Your task to perform on an android device: Clear all items from cart on costco.com. Add rayovac triple a to the cart on costco.com, then select checkout. Image 0: 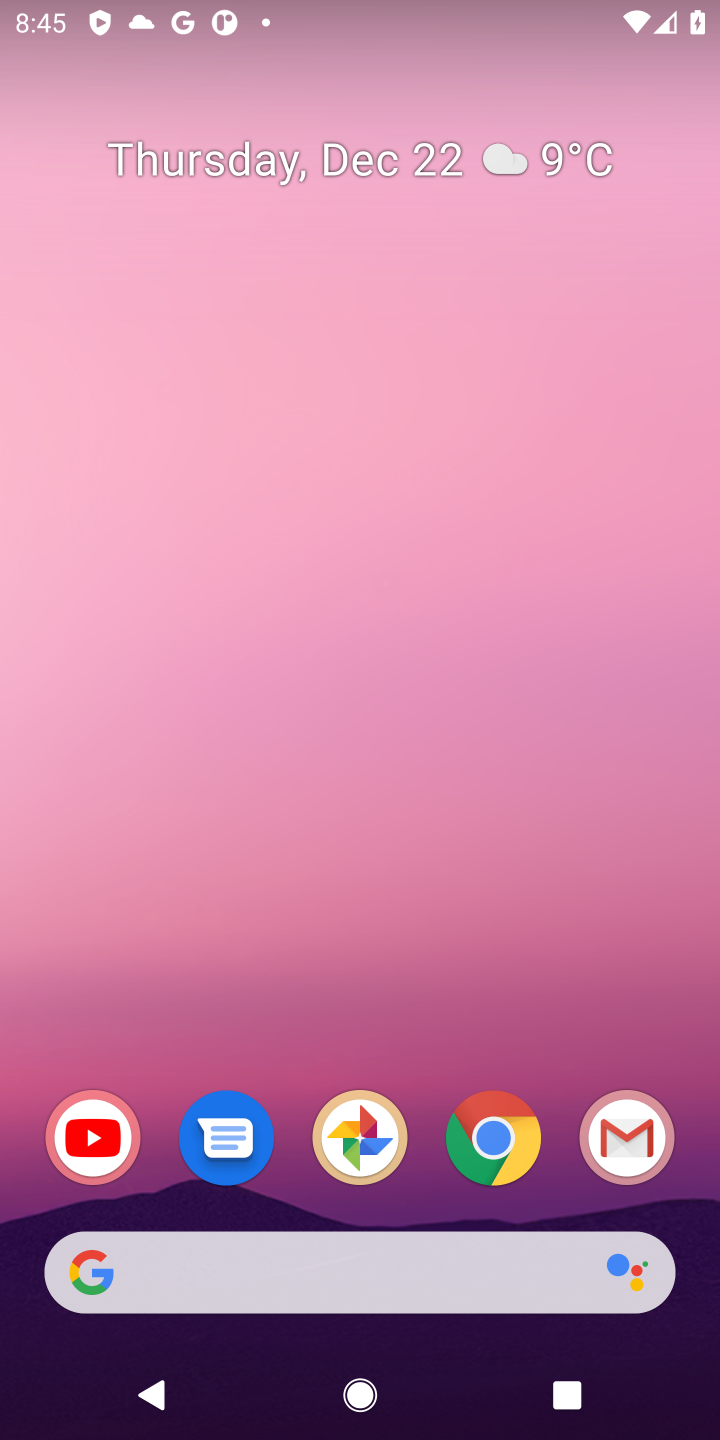
Step 0: click (524, 1134)
Your task to perform on an android device: Clear all items from cart on costco.com. Add rayovac triple a to the cart on costco.com, then select checkout. Image 1: 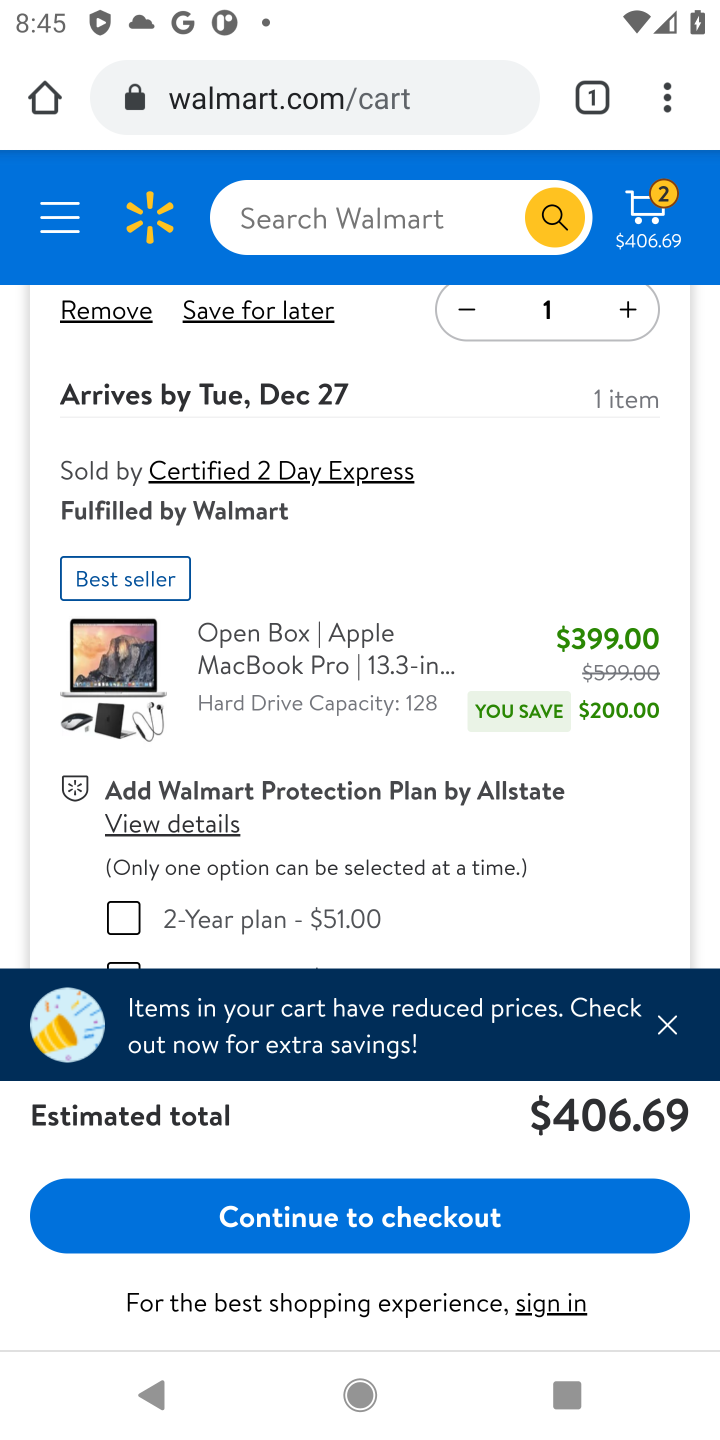
Step 1: click (282, 108)
Your task to perform on an android device: Clear all items from cart on costco.com. Add rayovac triple a to the cart on costco.com, then select checkout. Image 2: 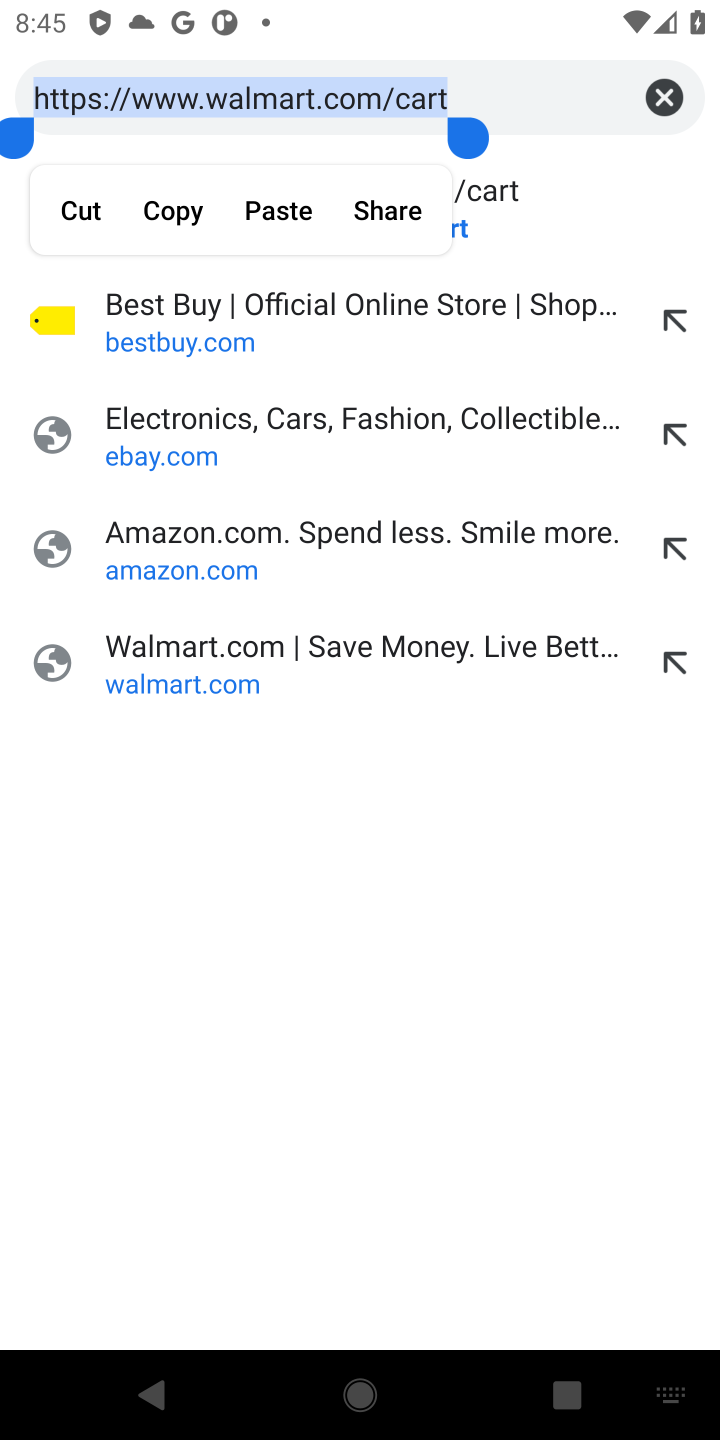
Step 2: click (673, 106)
Your task to perform on an android device: Clear all items from cart on costco.com. Add rayovac triple a to the cart on costco.com, then select checkout. Image 3: 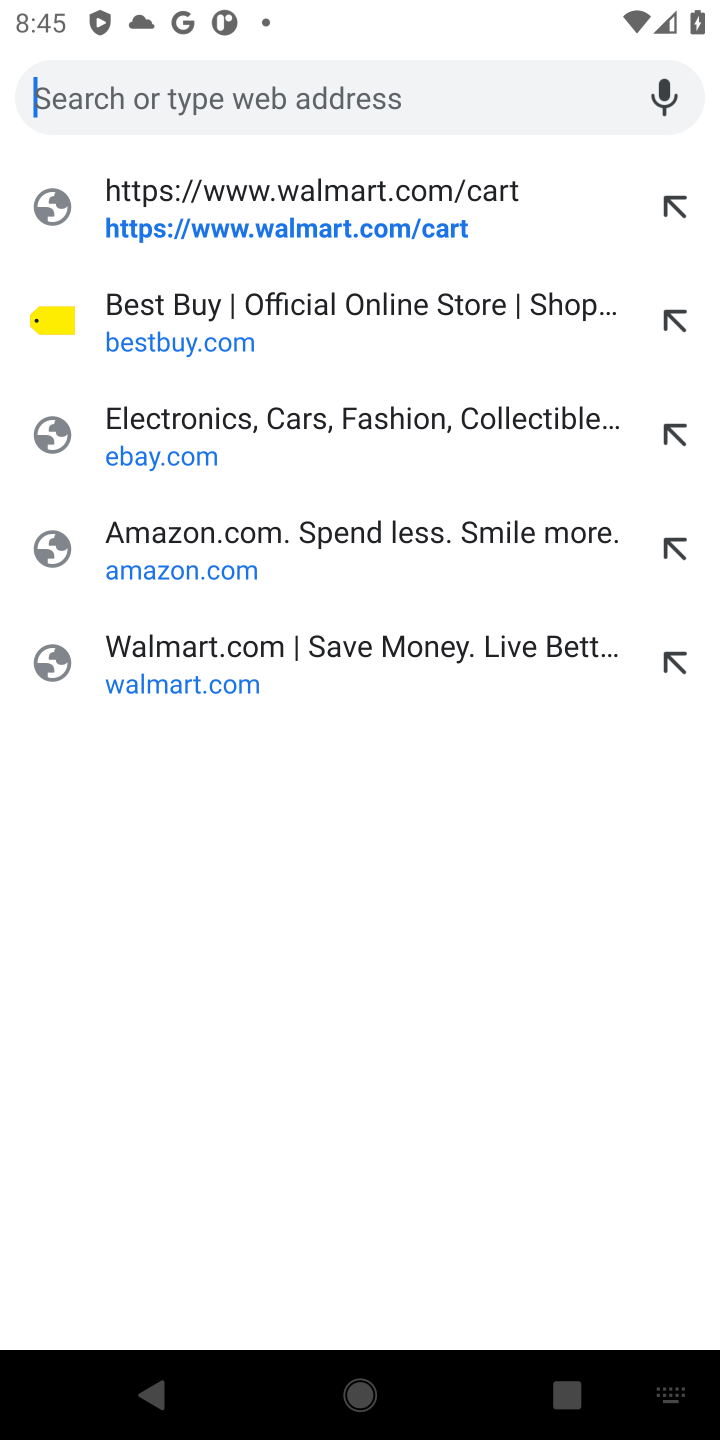
Step 3: type "costco.com"
Your task to perform on an android device: Clear all items from cart on costco.com. Add rayovac triple a to the cart on costco.com, then select checkout. Image 4: 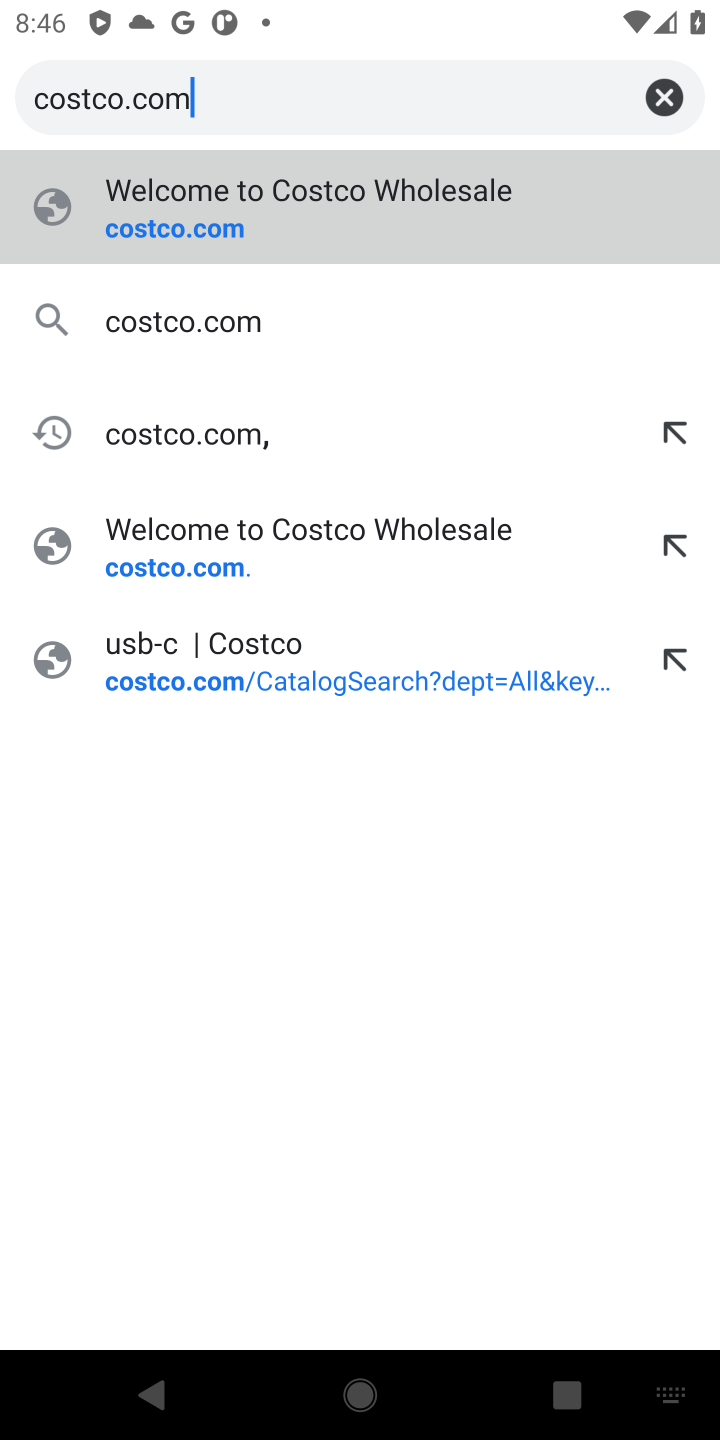
Step 4: click (299, 219)
Your task to perform on an android device: Clear all items from cart on costco.com. Add rayovac triple a to the cart on costco.com, then select checkout. Image 5: 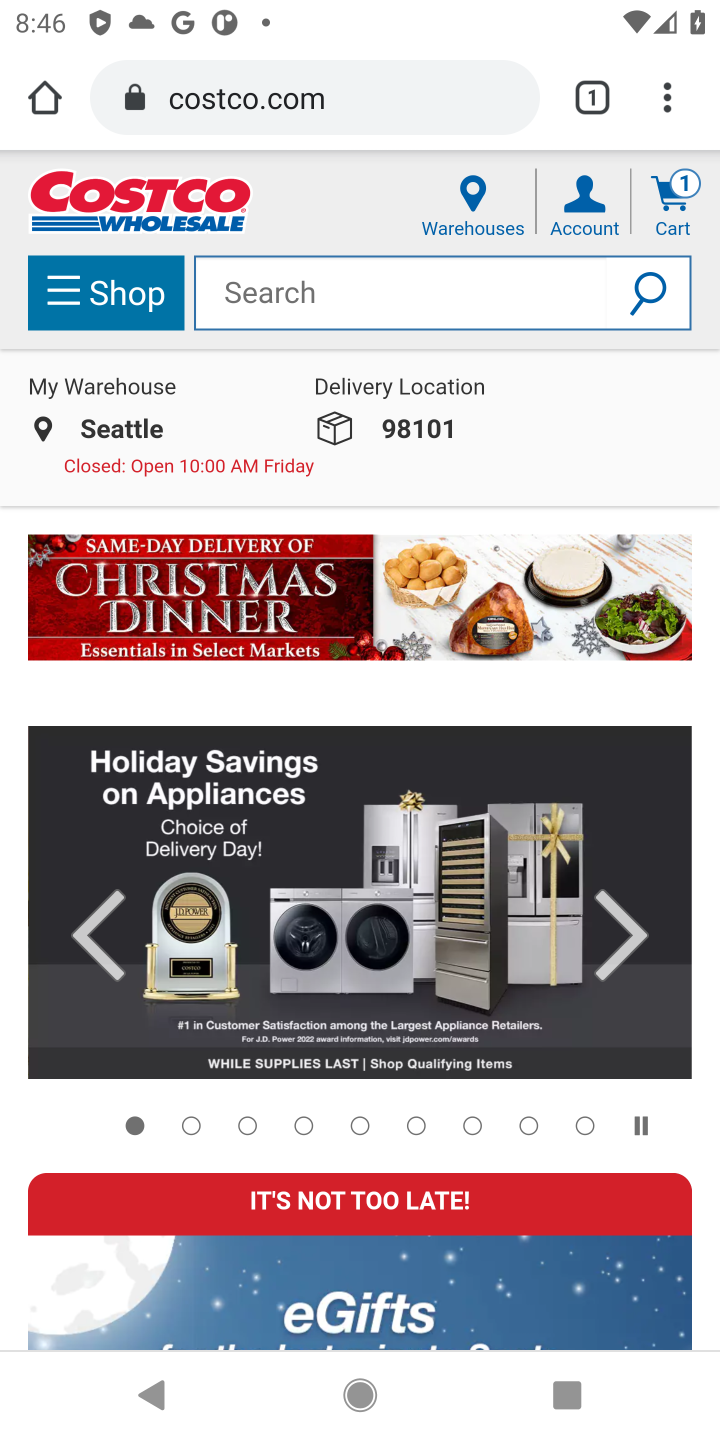
Step 5: click (671, 216)
Your task to perform on an android device: Clear all items from cart on costco.com. Add rayovac triple a to the cart on costco.com, then select checkout. Image 6: 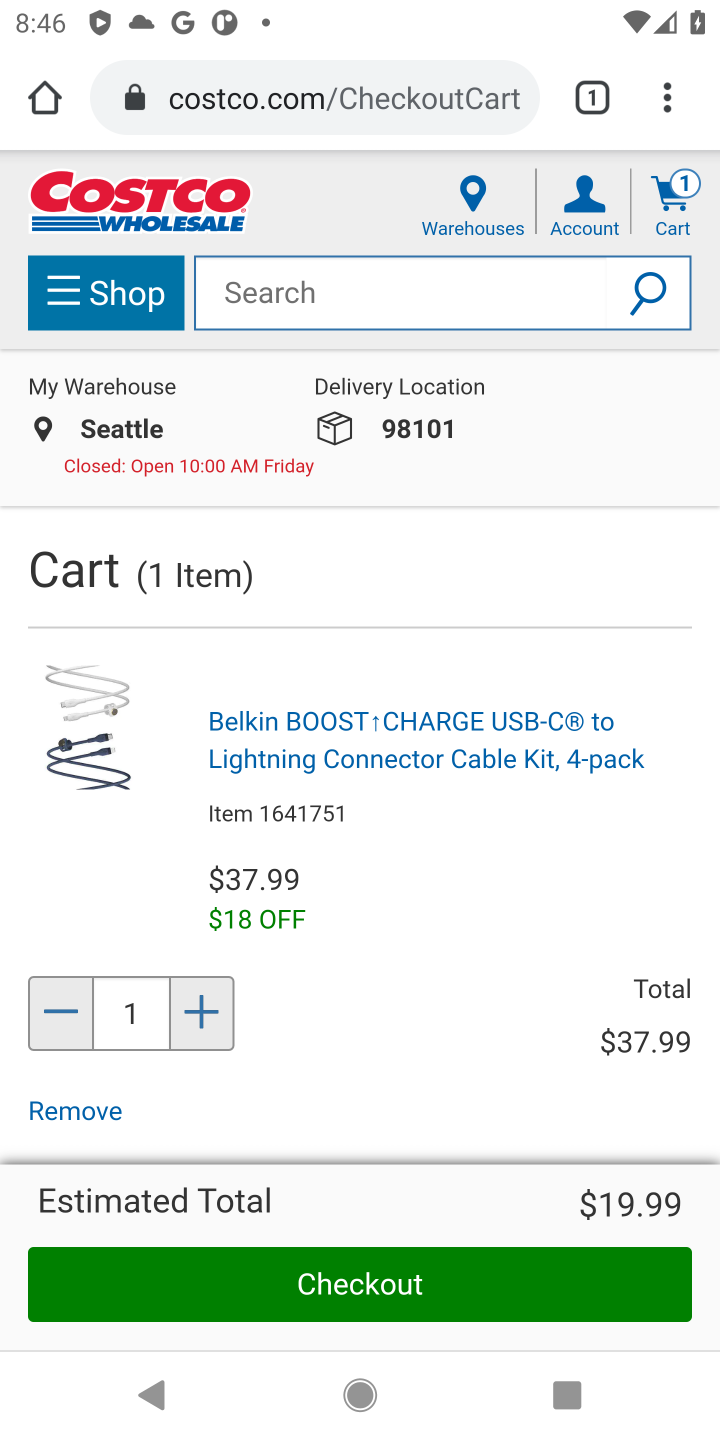
Step 6: drag from (438, 1026) to (479, 679)
Your task to perform on an android device: Clear all items from cart on costco.com. Add rayovac triple a to the cart on costco.com, then select checkout. Image 7: 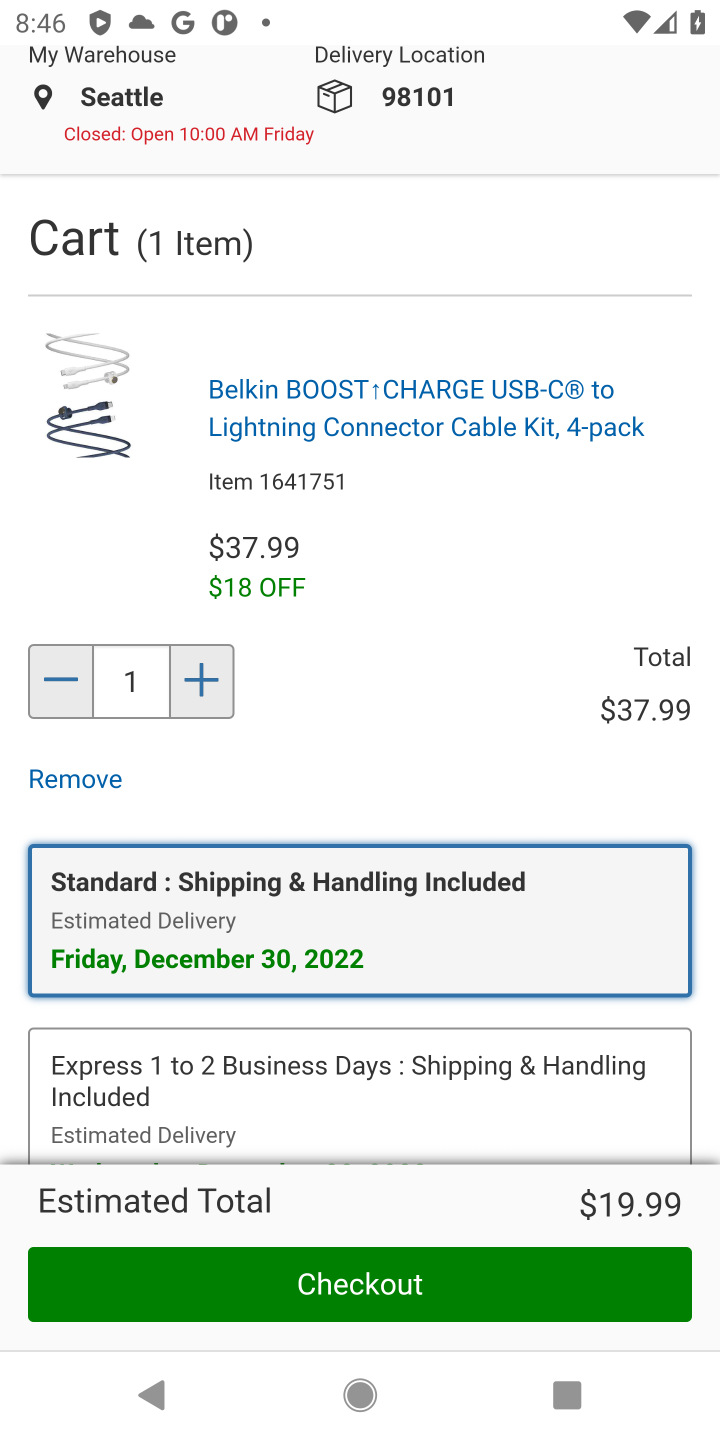
Step 7: click (78, 787)
Your task to perform on an android device: Clear all items from cart on costco.com. Add rayovac triple a to the cart on costco.com, then select checkout. Image 8: 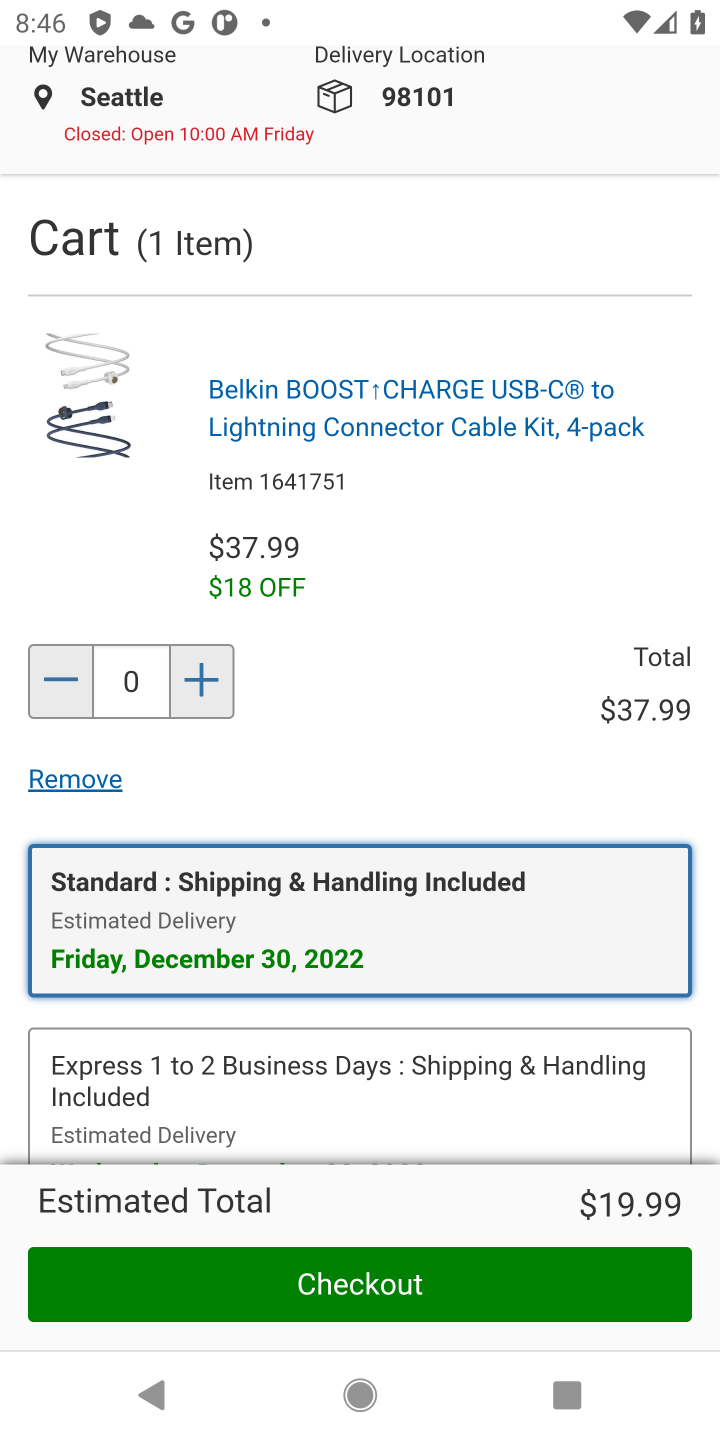
Step 8: click (50, 692)
Your task to perform on an android device: Clear all items from cart on costco.com. Add rayovac triple a to the cart on costco.com, then select checkout. Image 9: 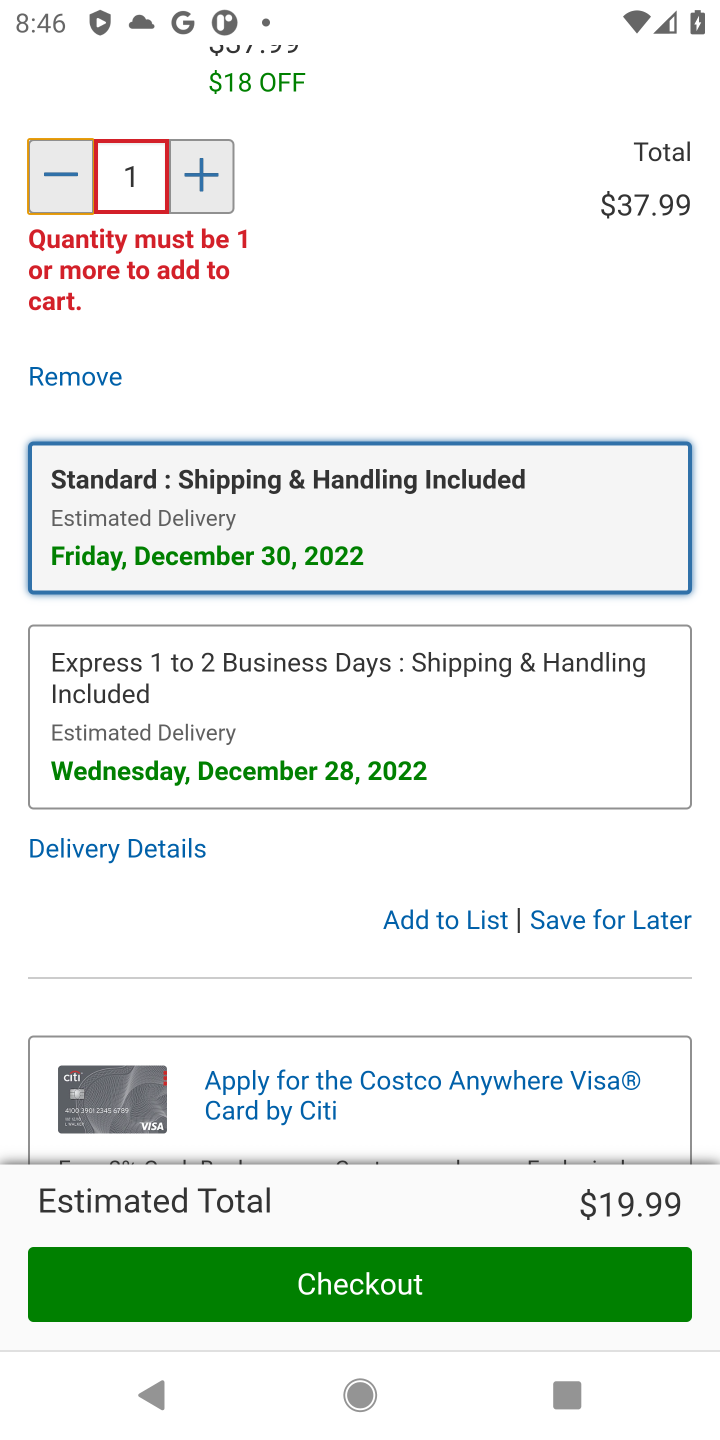
Step 9: task complete